Your task to perform on an android device: open app "Yahoo Mail" (install if not already installed) and go to login screen Image 0: 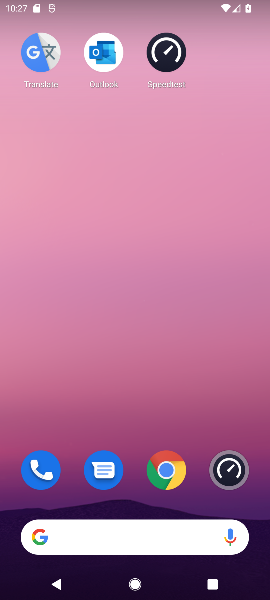
Step 0: drag from (134, 489) to (163, 57)
Your task to perform on an android device: open app "Yahoo Mail" (install if not already installed) and go to login screen Image 1: 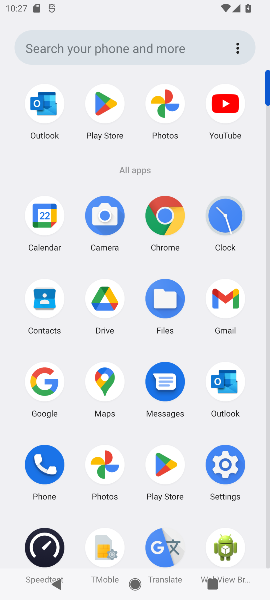
Step 1: click (109, 115)
Your task to perform on an android device: open app "Yahoo Mail" (install if not already installed) and go to login screen Image 2: 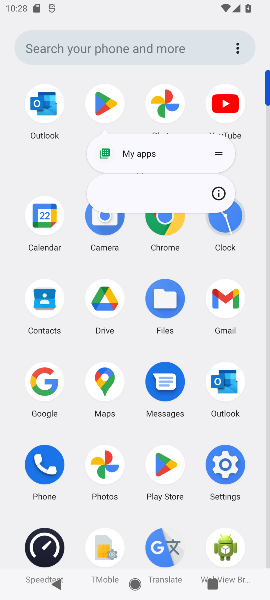
Step 2: click (102, 102)
Your task to perform on an android device: open app "Yahoo Mail" (install if not already installed) and go to login screen Image 3: 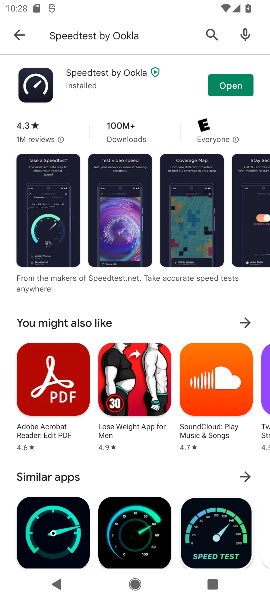
Step 3: press back button
Your task to perform on an android device: open app "Yahoo Mail" (install if not already installed) and go to login screen Image 4: 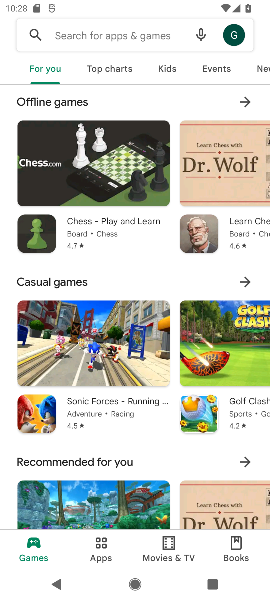
Step 4: click (110, 49)
Your task to perform on an android device: open app "Yahoo Mail" (install if not already installed) and go to login screen Image 5: 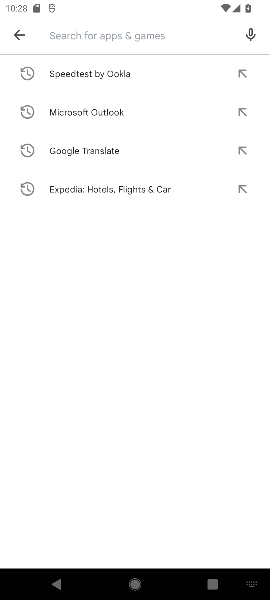
Step 5: type "Yahoo Mail"
Your task to perform on an android device: open app "Yahoo Mail" (install if not already installed) and go to login screen Image 6: 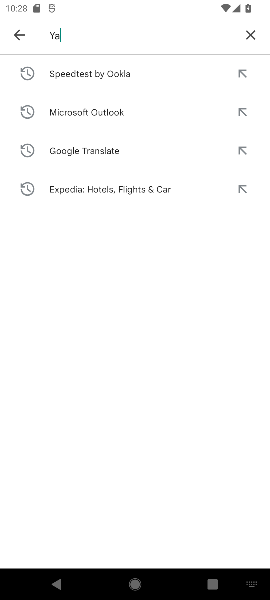
Step 6: press enter
Your task to perform on an android device: open app "Yahoo Mail" (install if not already installed) and go to login screen Image 7: 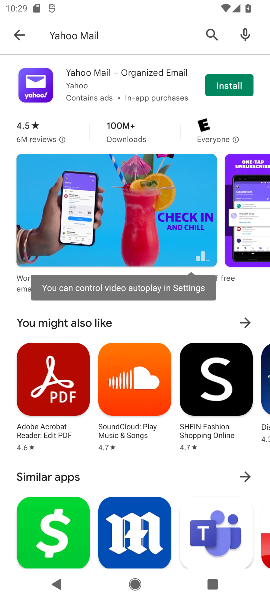
Step 7: click (221, 83)
Your task to perform on an android device: open app "Yahoo Mail" (install if not already installed) and go to login screen Image 8: 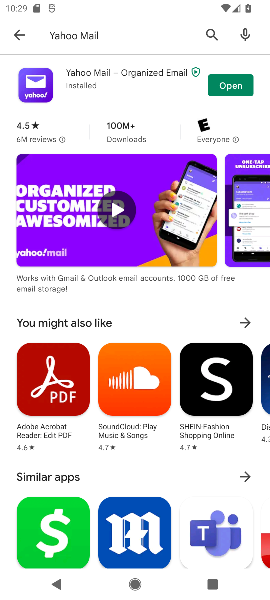
Step 8: click (241, 87)
Your task to perform on an android device: open app "Yahoo Mail" (install if not already installed) and go to login screen Image 9: 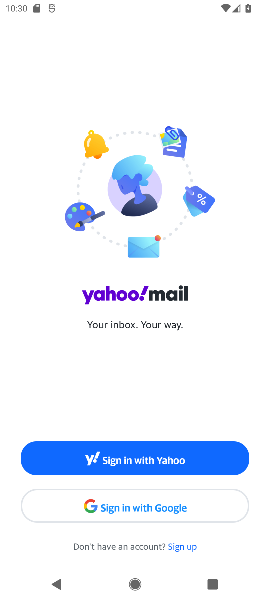
Step 9: click (158, 452)
Your task to perform on an android device: open app "Yahoo Mail" (install if not already installed) and go to login screen Image 10: 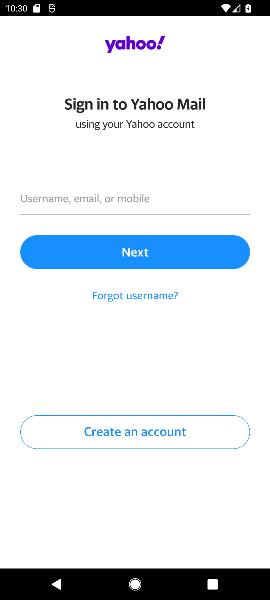
Step 10: task complete